Your task to perform on an android device: open app "Google Chat" (install if not already installed) Image 0: 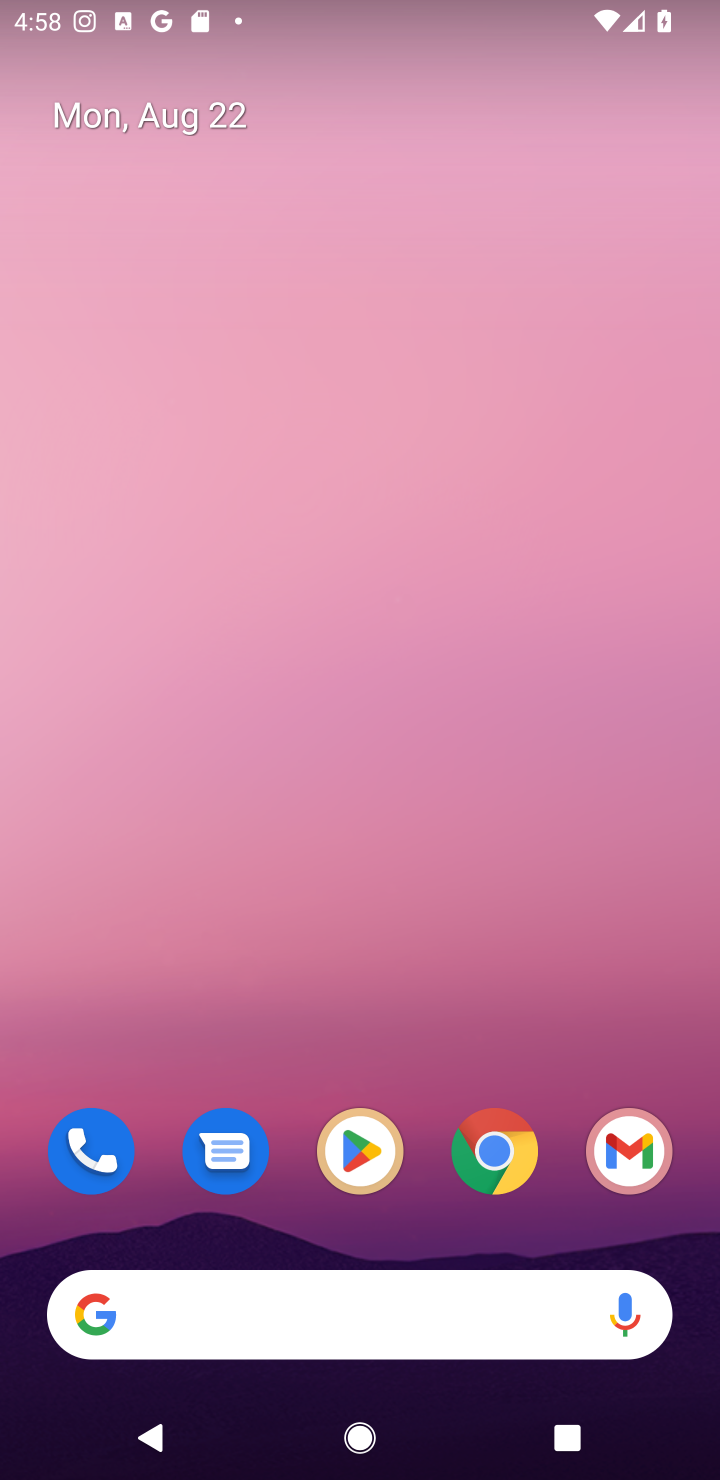
Step 0: press home button
Your task to perform on an android device: open app "Google Chat" (install if not already installed) Image 1: 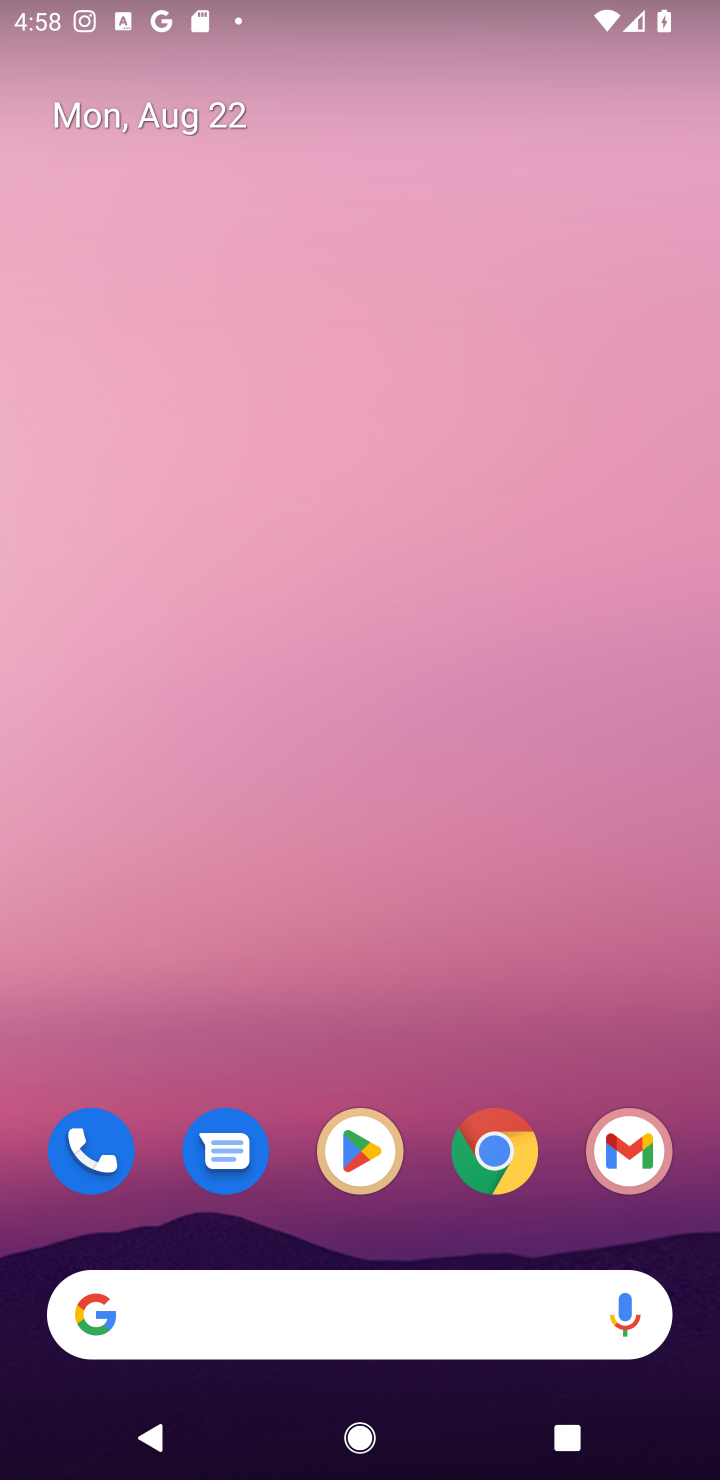
Step 1: click (357, 1148)
Your task to perform on an android device: open app "Google Chat" (install if not already installed) Image 2: 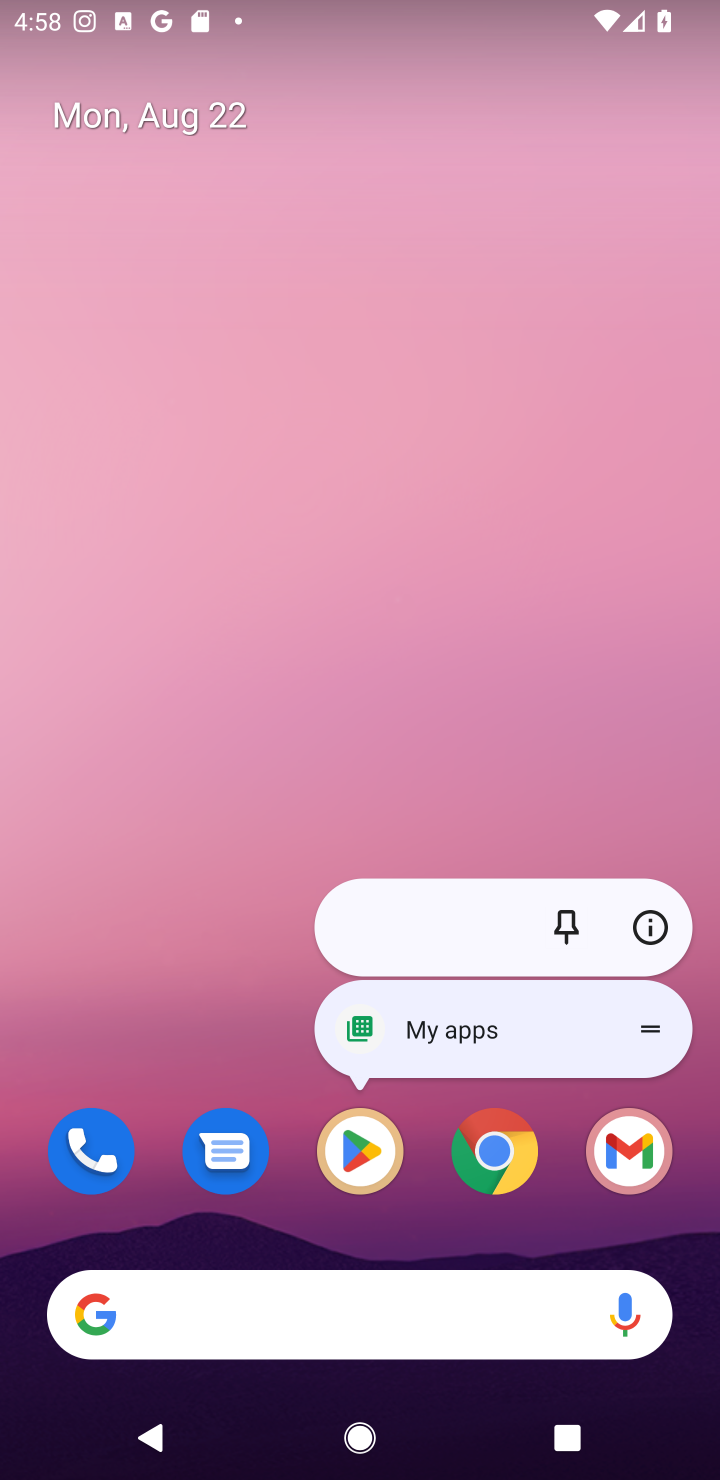
Step 2: click (357, 1156)
Your task to perform on an android device: open app "Google Chat" (install if not already installed) Image 3: 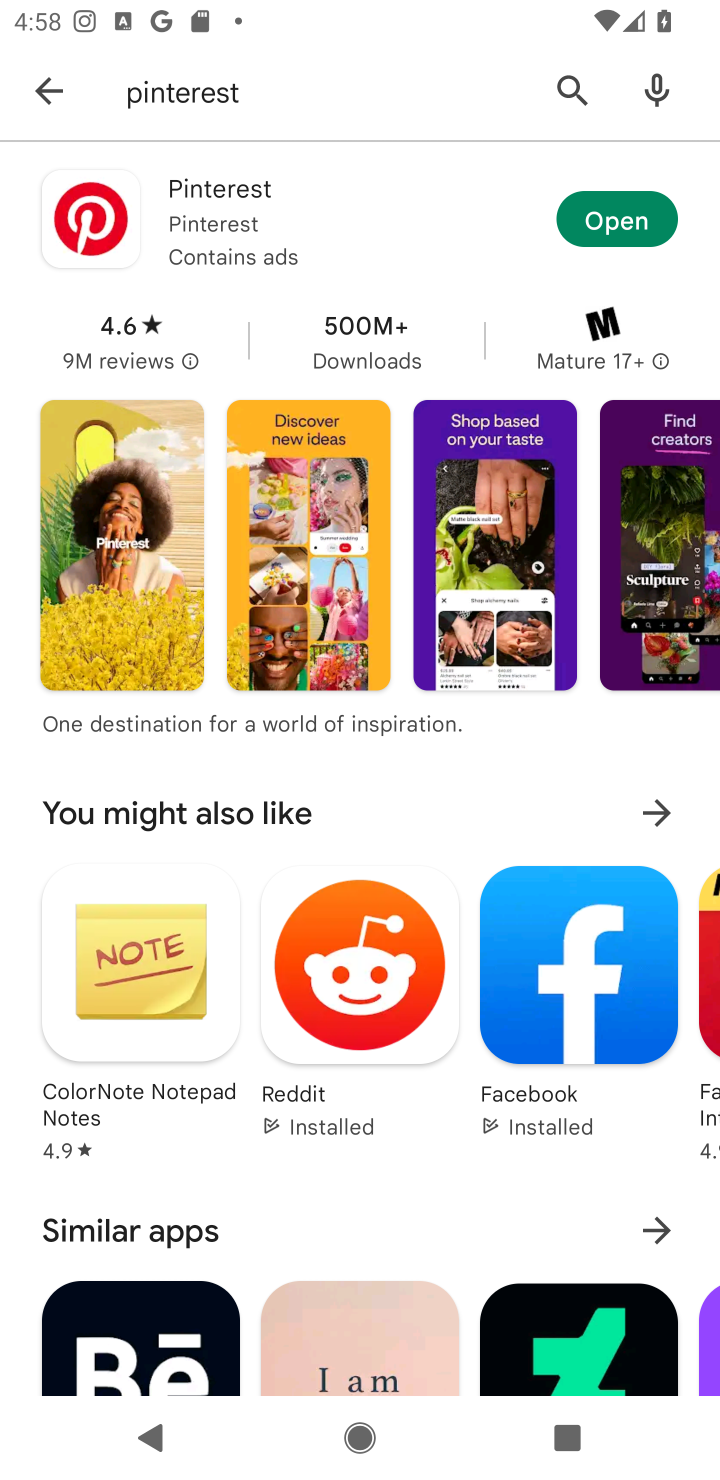
Step 3: click (557, 81)
Your task to perform on an android device: open app "Google Chat" (install if not already installed) Image 4: 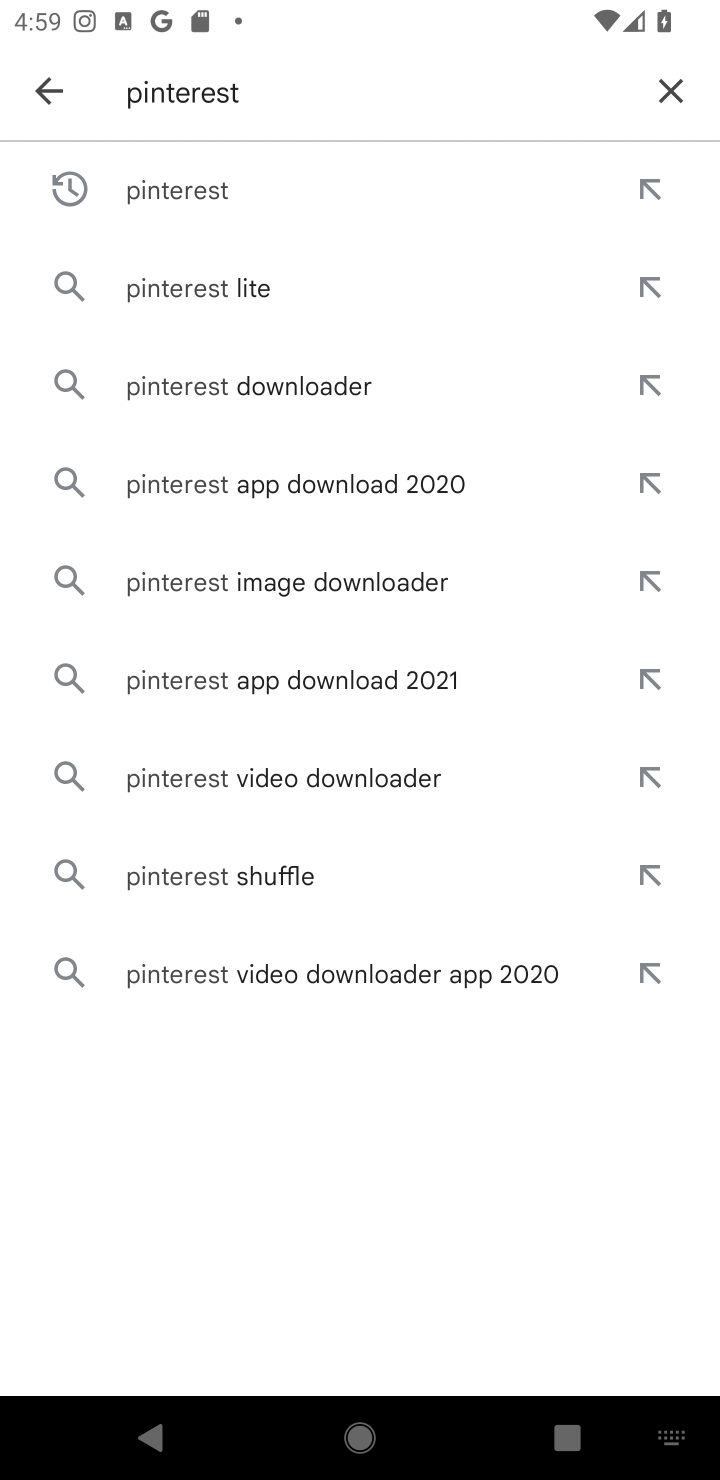
Step 4: click (662, 85)
Your task to perform on an android device: open app "Google Chat" (install if not already installed) Image 5: 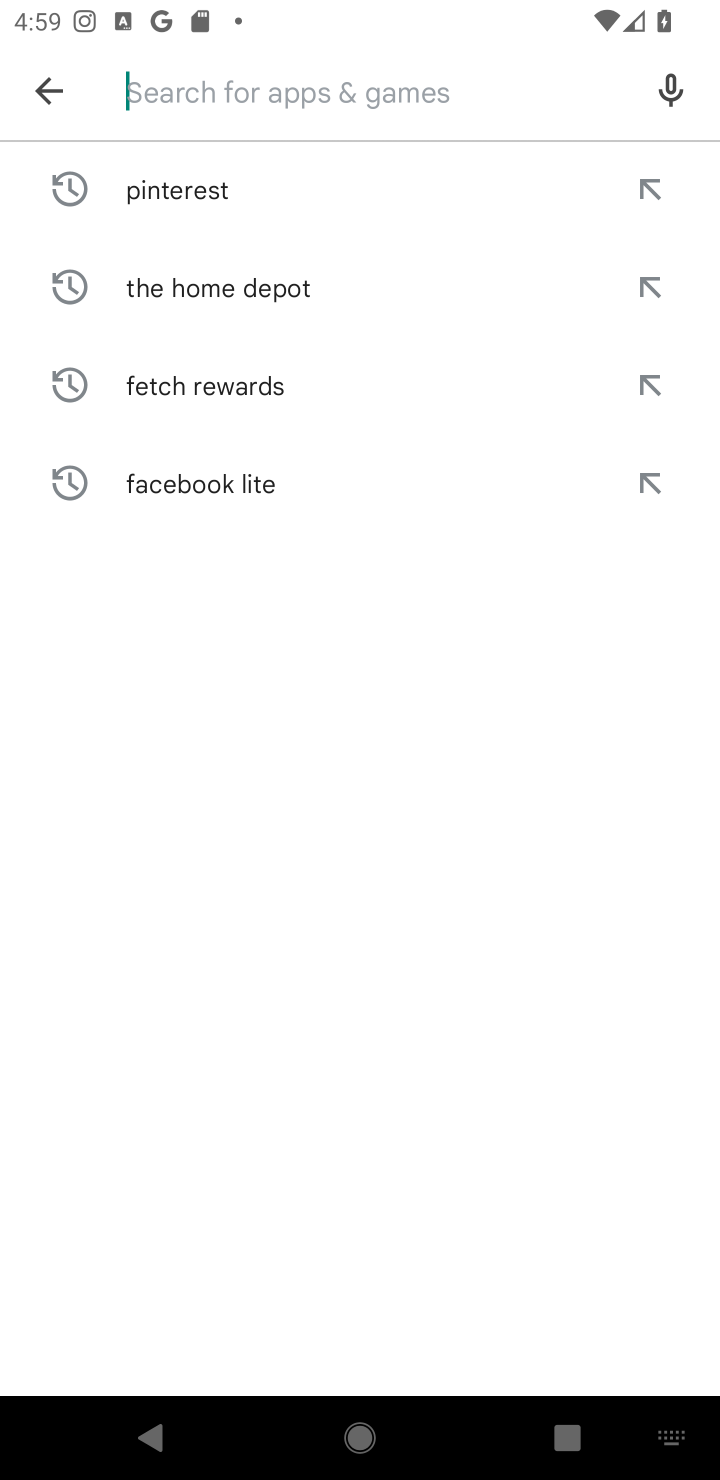
Step 5: type "Google Chat"
Your task to perform on an android device: open app "Google Chat" (install if not already installed) Image 6: 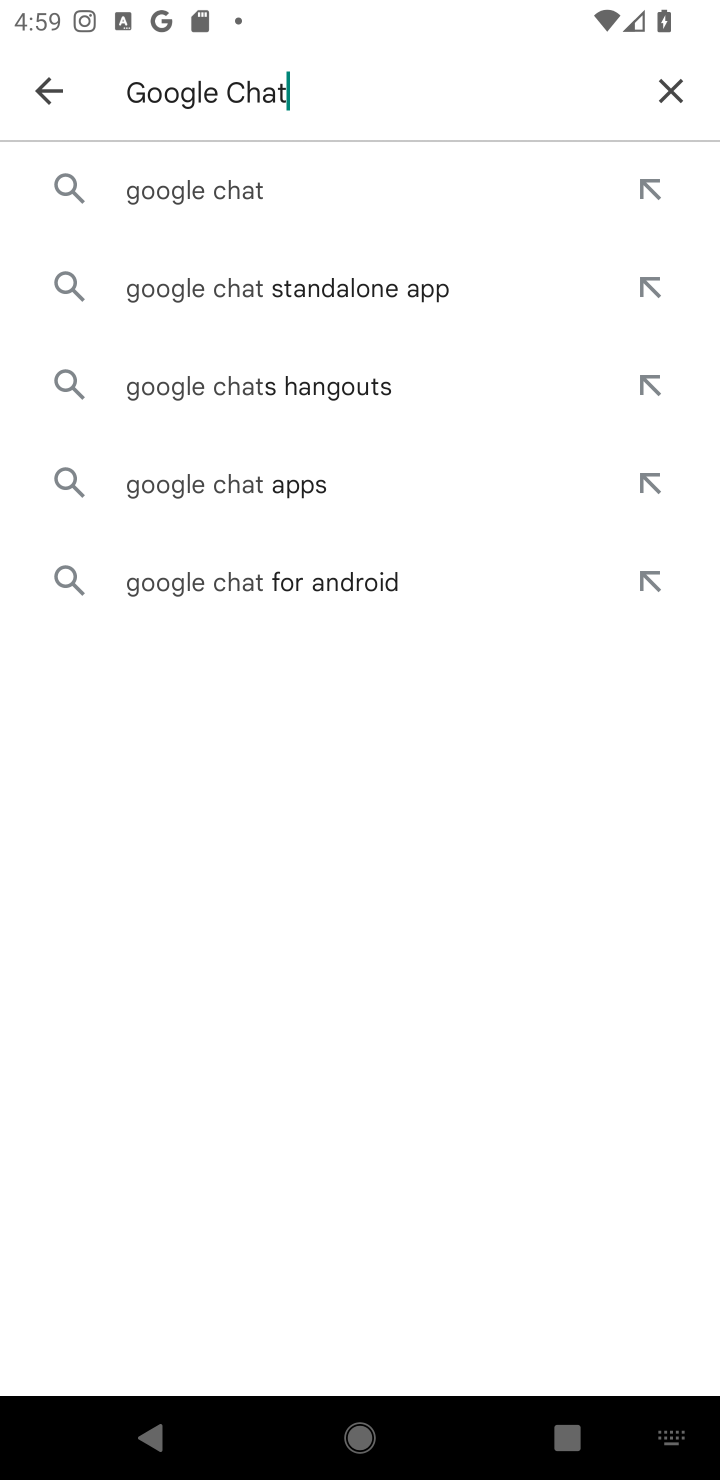
Step 6: click (207, 196)
Your task to perform on an android device: open app "Google Chat" (install if not already installed) Image 7: 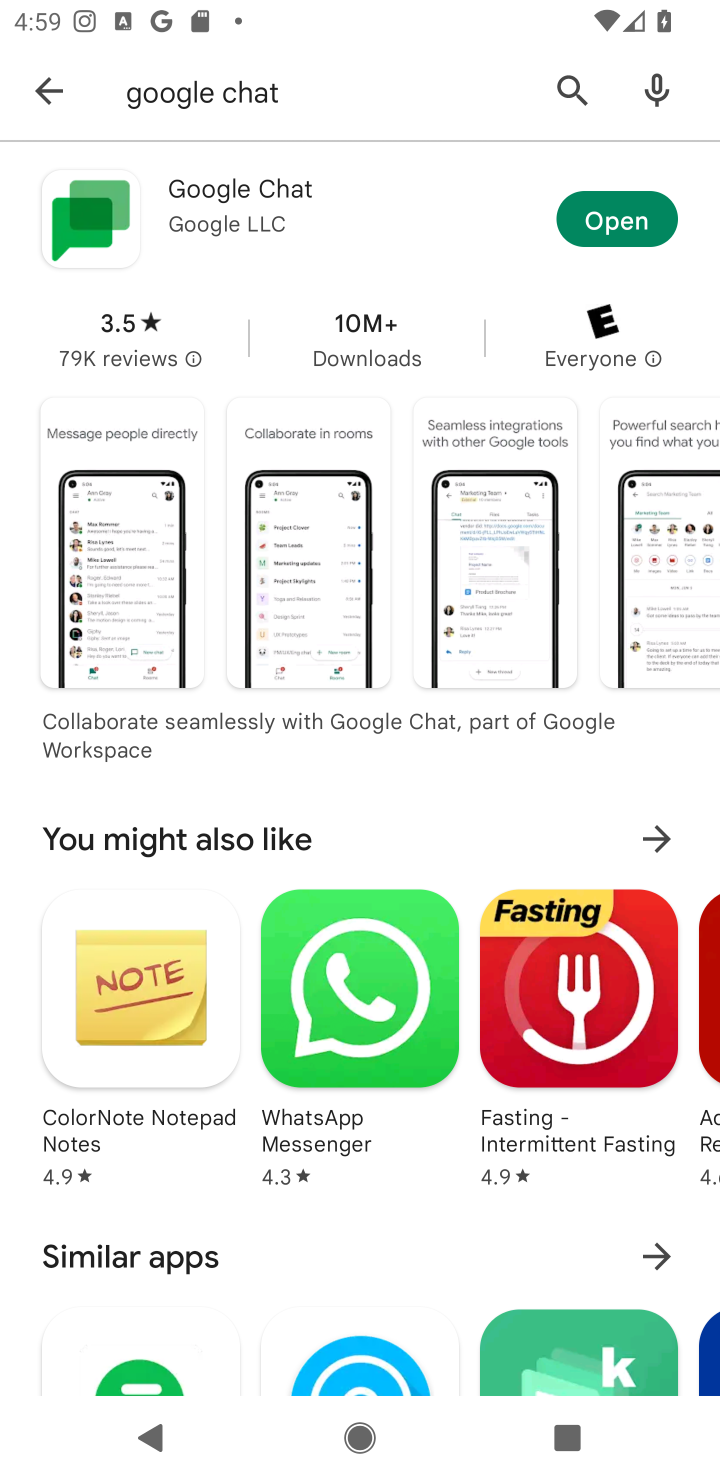
Step 7: click (598, 216)
Your task to perform on an android device: open app "Google Chat" (install if not already installed) Image 8: 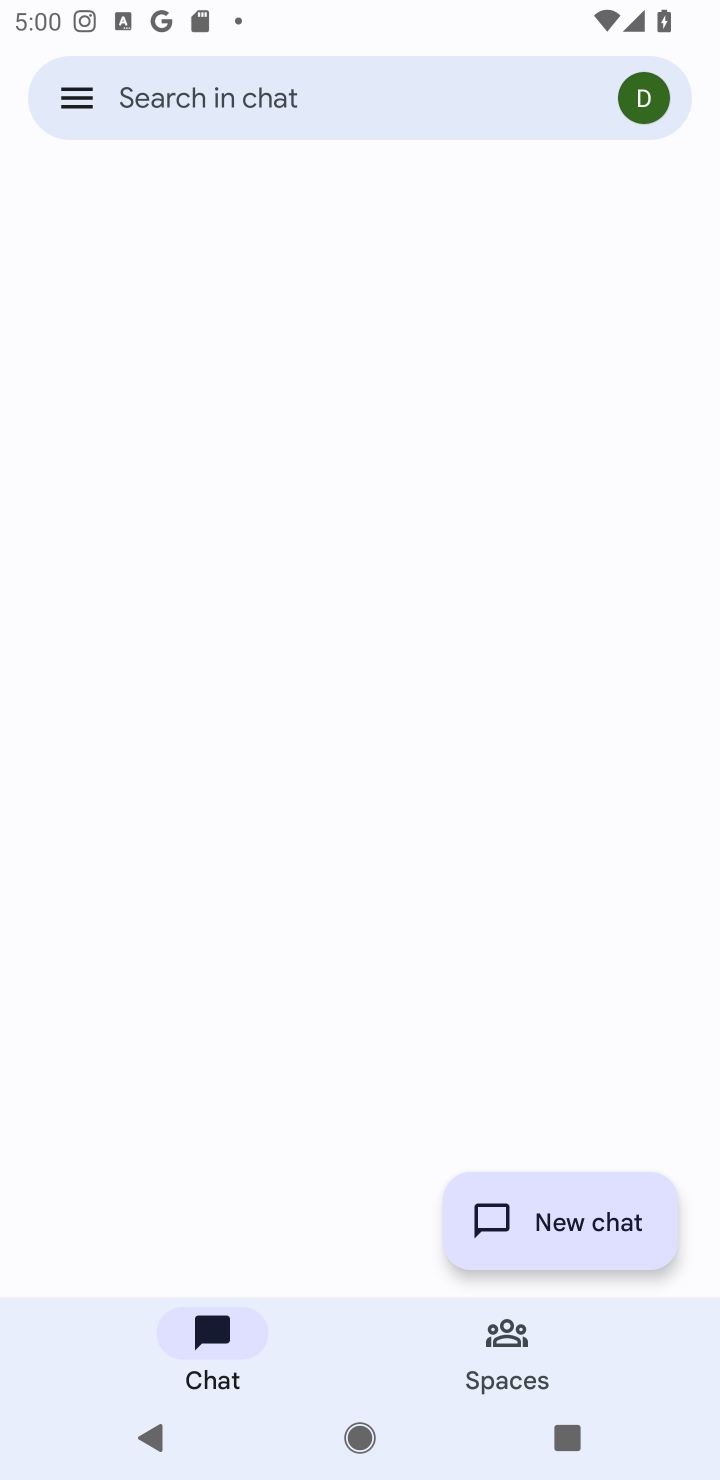
Step 8: task complete